Your task to perform on an android device: Open Youtube and go to the subscriptions tab Image 0: 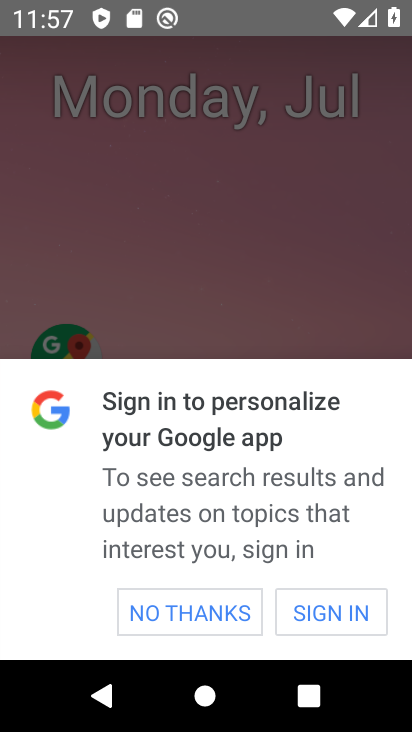
Step 0: press home button
Your task to perform on an android device: Open Youtube and go to the subscriptions tab Image 1: 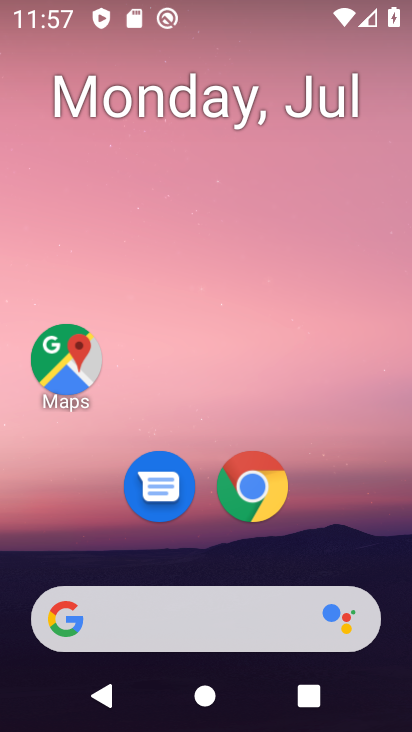
Step 1: drag from (360, 533) to (376, 78)
Your task to perform on an android device: Open Youtube and go to the subscriptions tab Image 2: 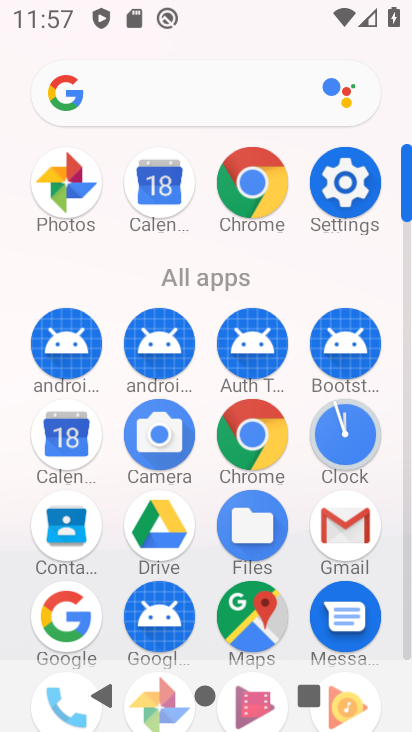
Step 2: drag from (388, 661) to (411, 521)
Your task to perform on an android device: Open Youtube and go to the subscriptions tab Image 3: 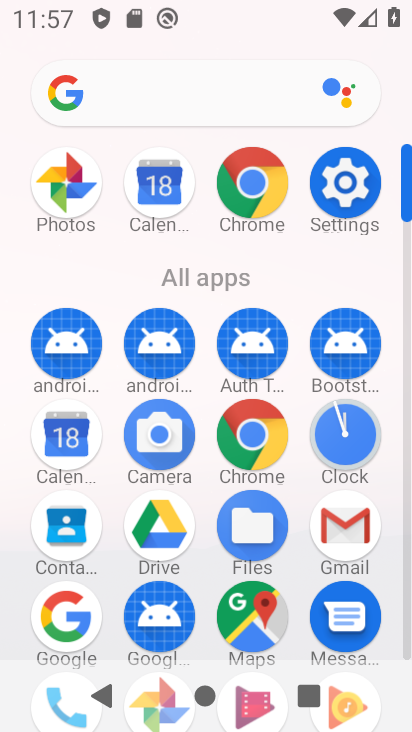
Step 3: drag from (384, 590) to (396, 361)
Your task to perform on an android device: Open Youtube and go to the subscriptions tab Image 4: 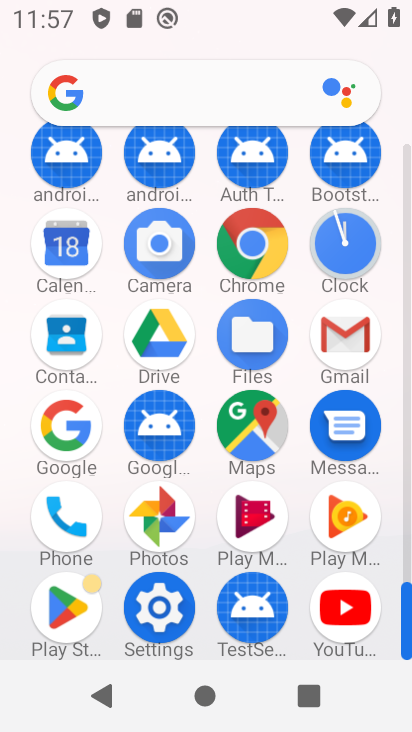
Step 4: click (340, 612)
Your task to perform on an android device: Open Youtube and go to the subscriptions tab Image 5: 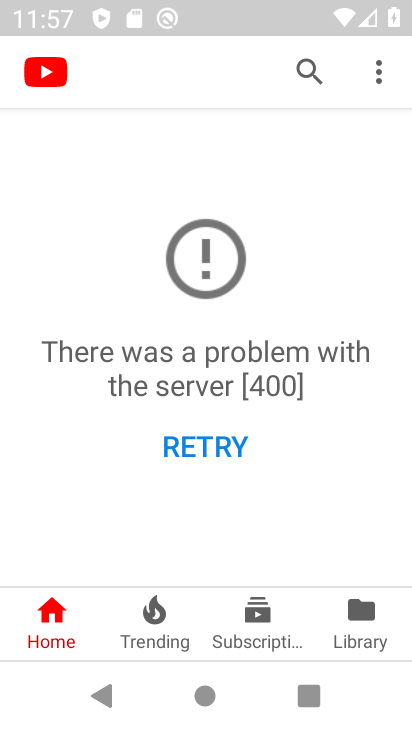
Step 5: click (259, 621)
Your task to perform on an android device: Open Youtube and go to the subscriptions tab Image 6: 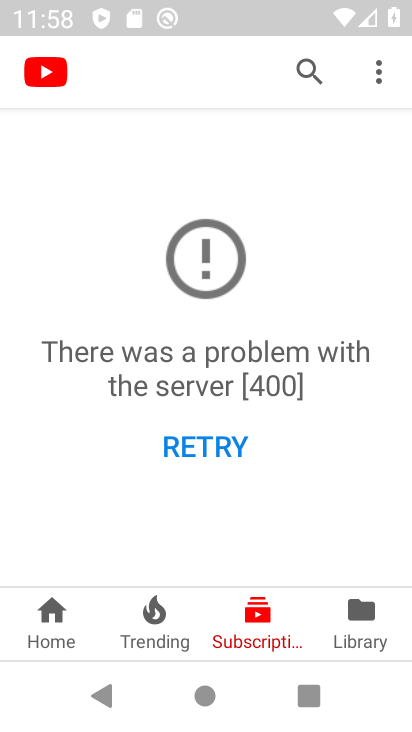
Step 6: task complete